Your task to perform on an android device: move an email to a new category in the gmail app Image 0: 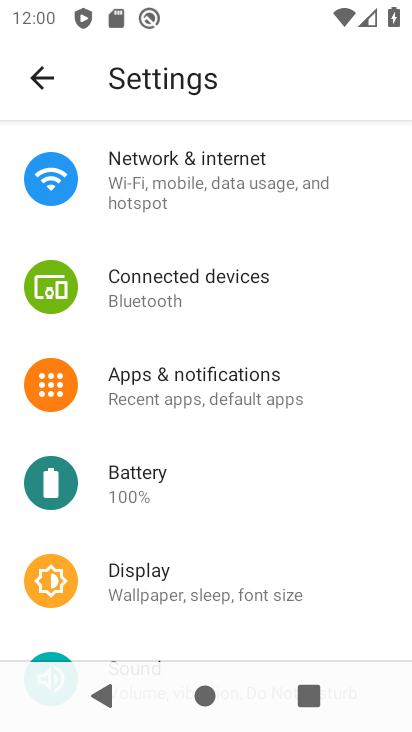
Step 0: press home button
Your task to perform on an android device: move an email to a new category in the gmail app Image 1: 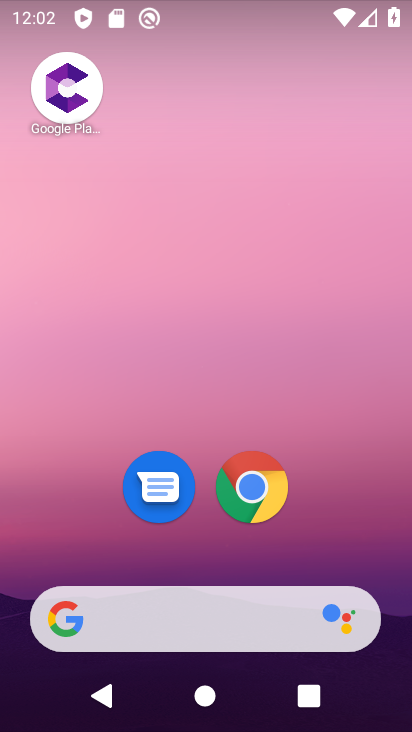
Step 1: drag from (343, 501) to (306, 7)
Your task to perform on an android device: move an email to a new category in the gmail app Image 2: 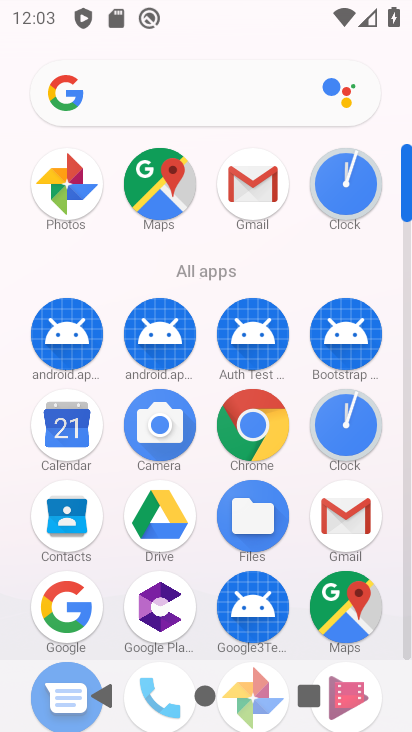
Step 2: click (252, 196)
Your task to perform on an android device: move an email to a new category in the gmail app Image 3: 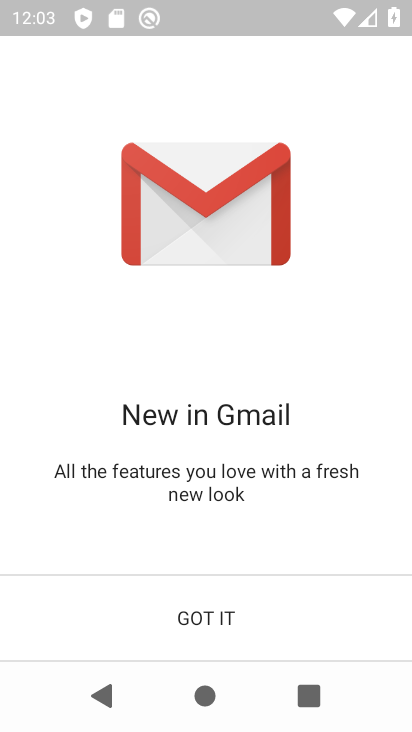
Step 3: click (212, 643)
Your task to perform on an android device: move an email to a new category in the gmail app Image 4: 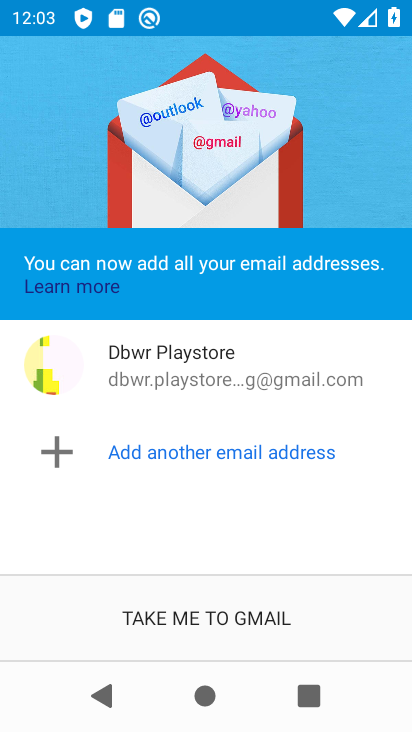
Step 4: click (275, 611)
Your task to perform on an android device: move an email to a new category in the gmail app Image 5: 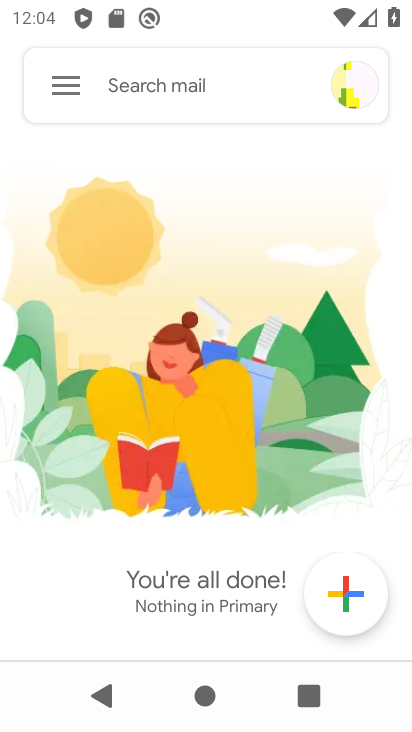
Step 5: click (54, 97)
Your task to perform on an android device: move an email to a new category in the gmail app Image 6: 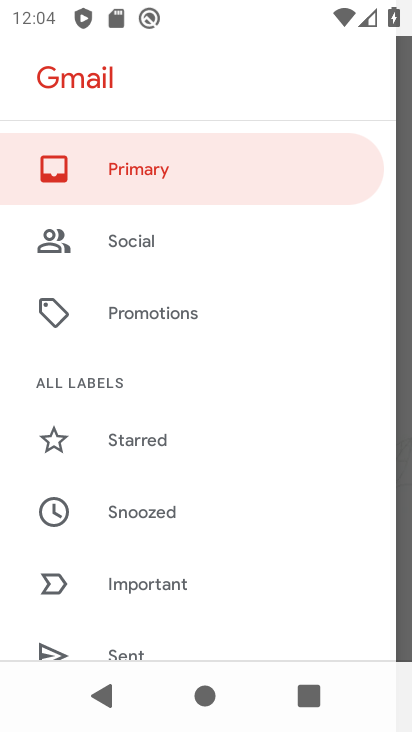
Step 6: task complete